Your task to perform on an android device: check battery use Image 0: 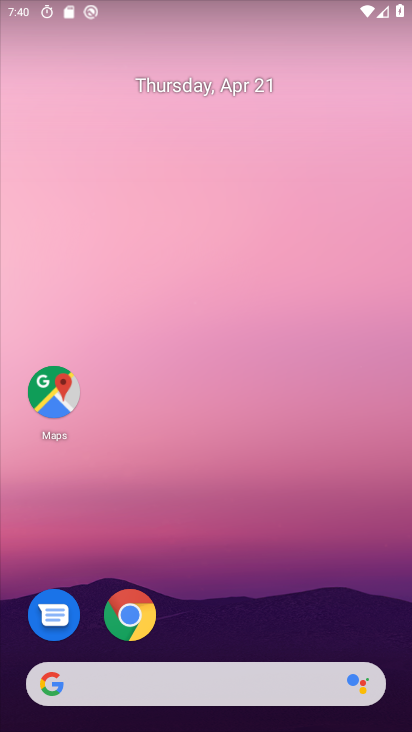
Step 0: drag from (228, 671) to (345, 198)
Your task to perform on an android device: check battery use Image 1: 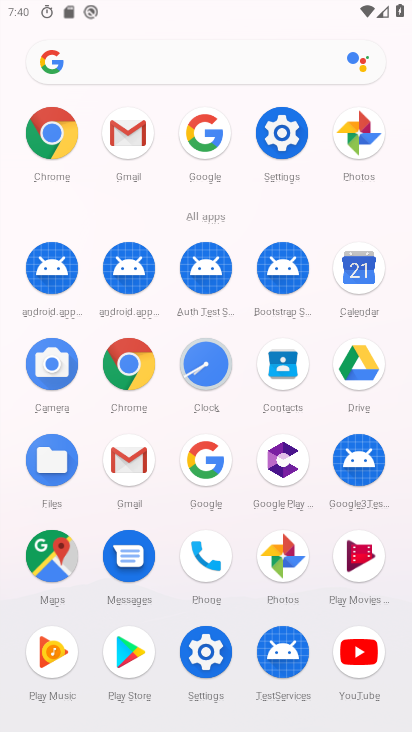
Step 1: click (283, 134)
Your task to perform on an android device: check battery use Image 2: 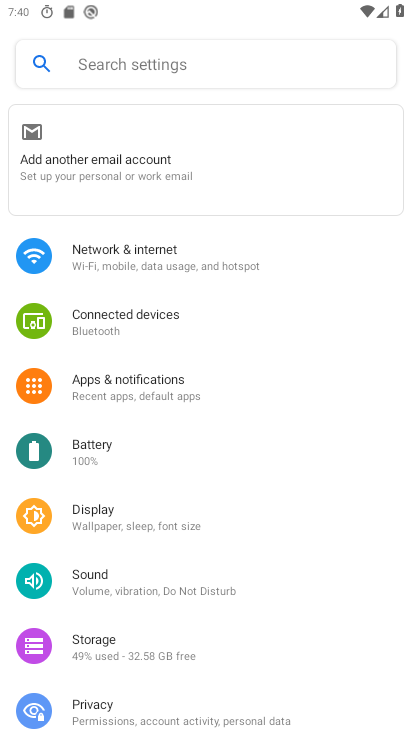
Step 2: click (82, 450)
Your task to perform on an android device: check battery use Image 3: 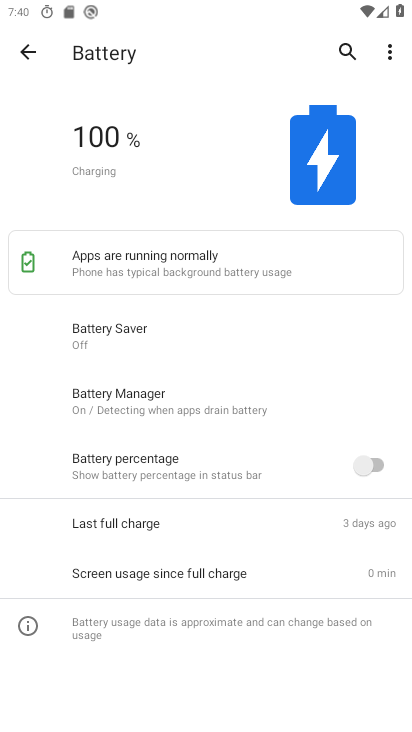
Step 3: click (393, 51)
Your task to perform on an android device: check battery use Image 4: 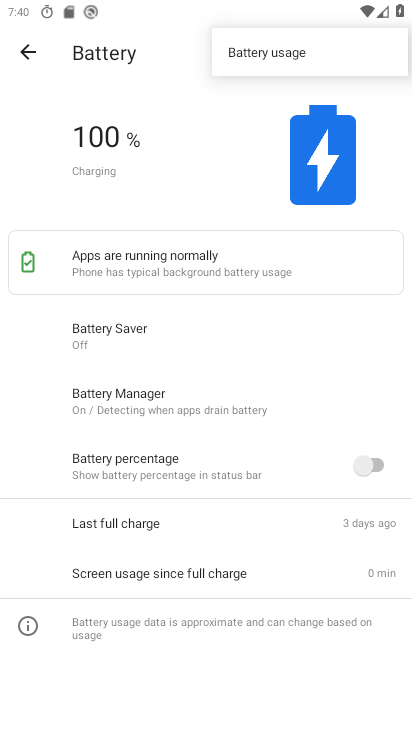
Step 4: click (291, 55)
Your task to perform on an android device: check battery use Image 5: 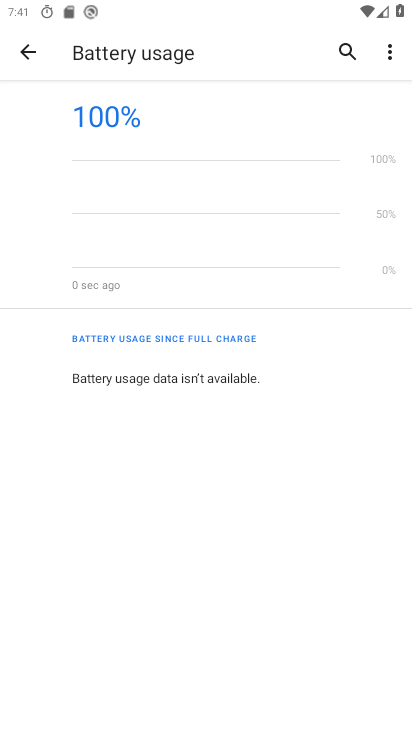
Step 5: task complete